Your task to perform on an android device: turn off improve location accuracy Image 0: 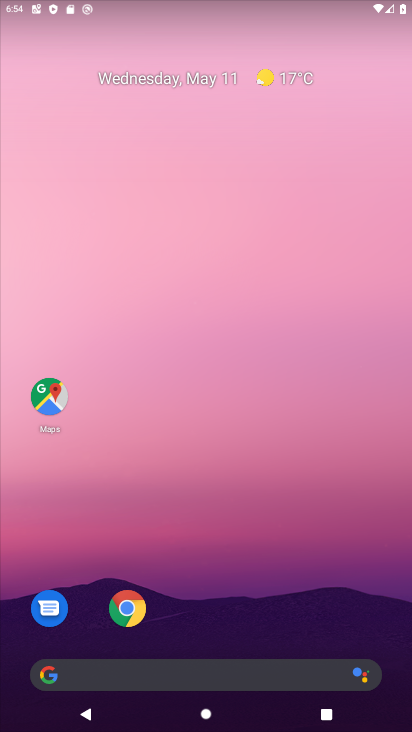
Step 0: drag from (240, 619) to (251, 69)
Your task to perform on an android device: turn off improve location accuracy Image 1: 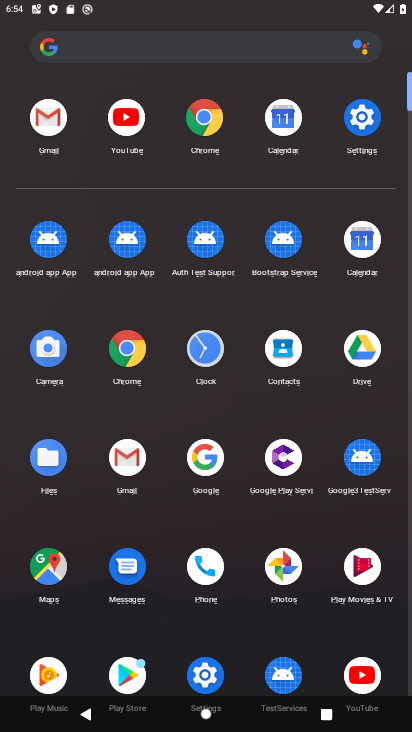
Step 1: click (355, 106)
Your task to perform on an android device: turn off improve location accuracy Image 2: 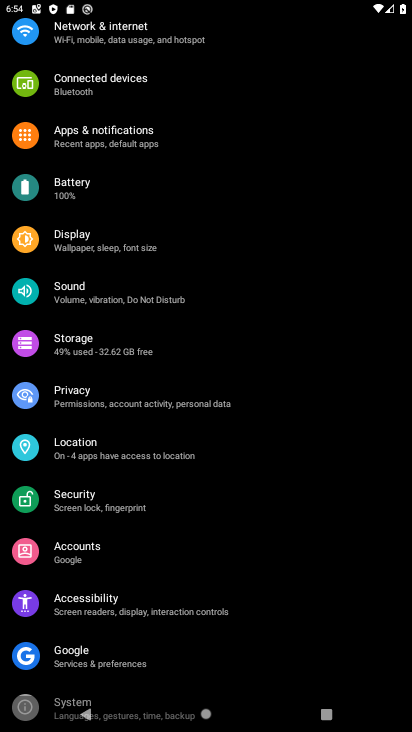
Step 2: click (133, 442)
Your task to perform on an android device: turn off improve location accuracy Image 3: 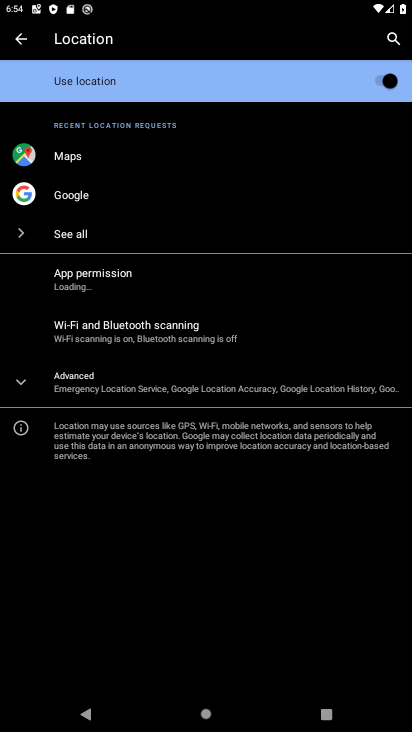
Step 3: click (186, 374)
Your task to perform on an android device: turn off improve location accuracy Image 4: 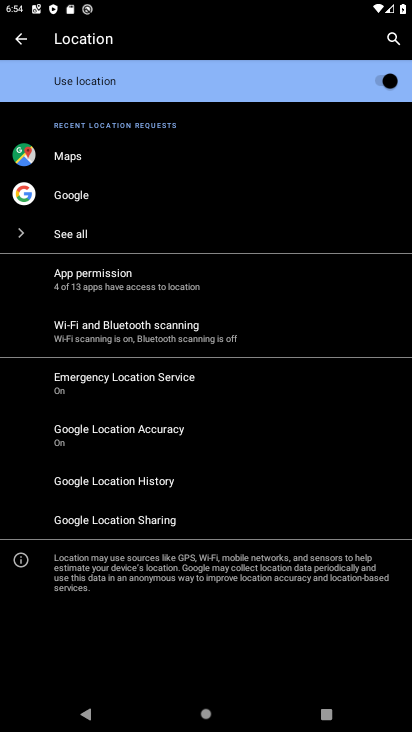
Step 4: click (196, 433)
Your task to perform on an android device: turn off improve location accuracy Image 5: 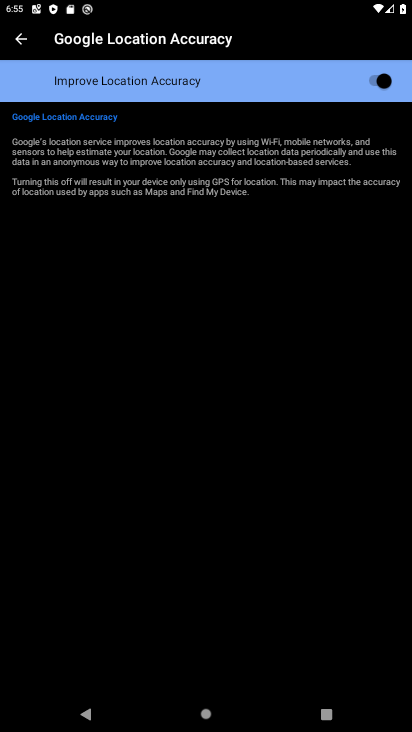
Step 5: click (367, 78)
Your task to perform on an android device: turn off improve location accuracy Image 6: 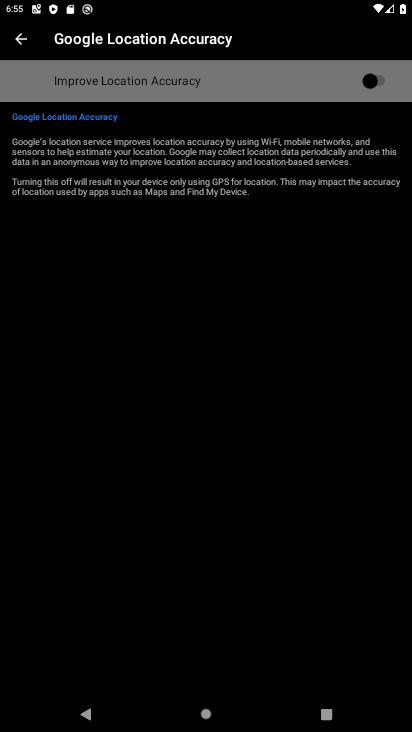
Step 6: task complete